Your task to perform on an android device: Turn off the flashlight Image 0: 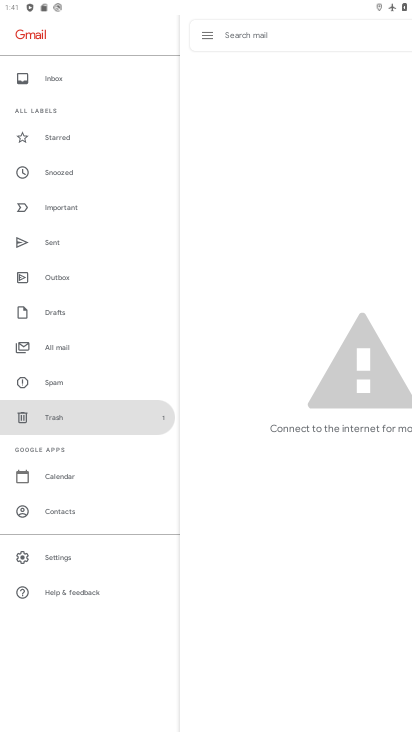
Step 0: press home button
Your task to perform on an android device: Turn off the flashlight Image 1: 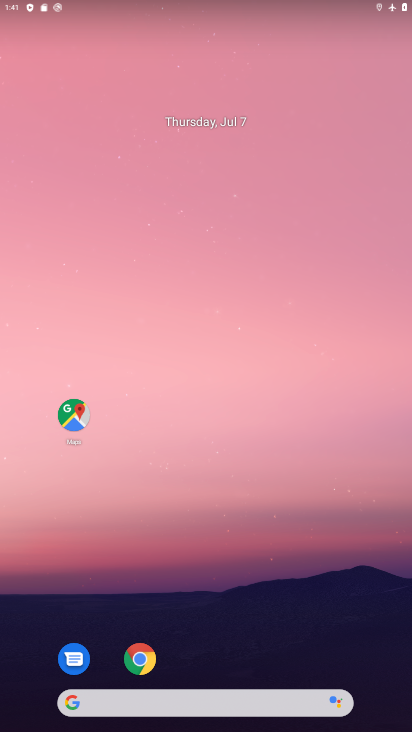
Step 1: task complete